Your task to perform on an android device: turn on the 24-hour format for clock Image 0: 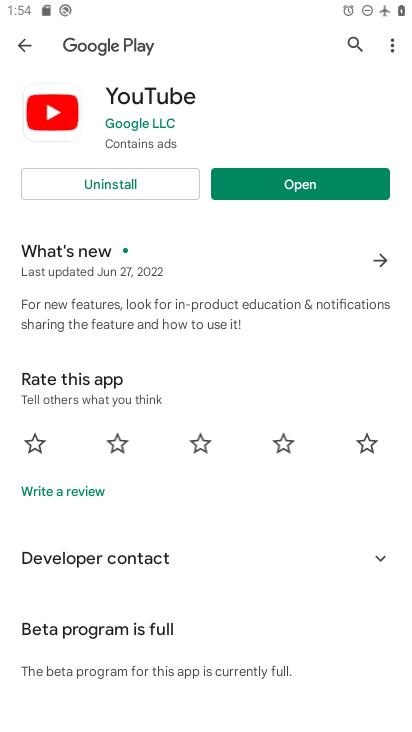
Step 0: press home button
Your task to perform on an android device: turn on the 24-hour format for clock Image 1: 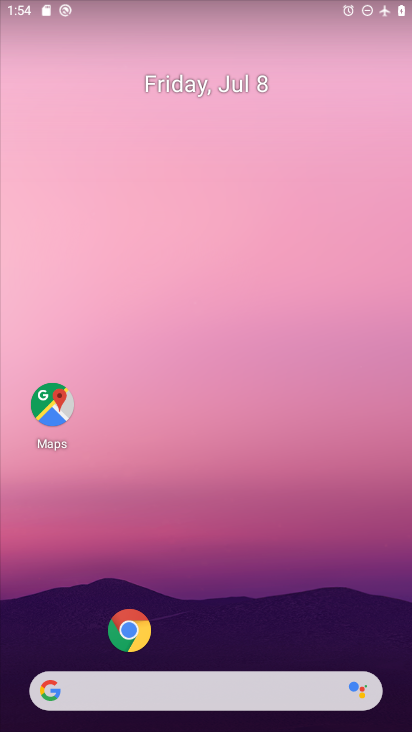
Step 1: drag from (336, 608) to (345, 178)
Your task to perform on an android device: turn on the 24-hour format for clock Image 2: 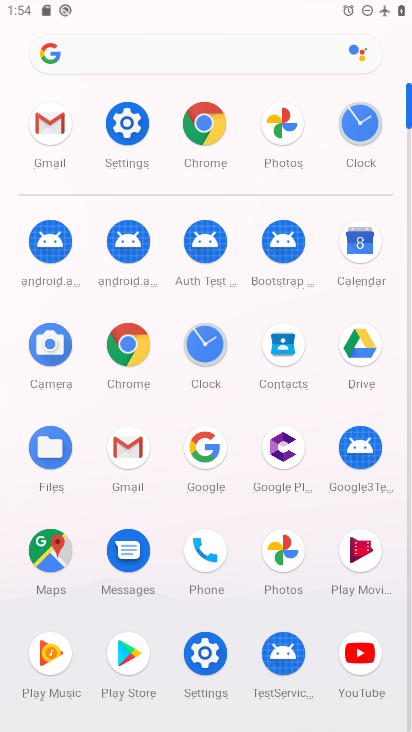
Step 2: click (207, 356)
Your task to perform on an android device: turn on the 24-hour format for clock Image 3: 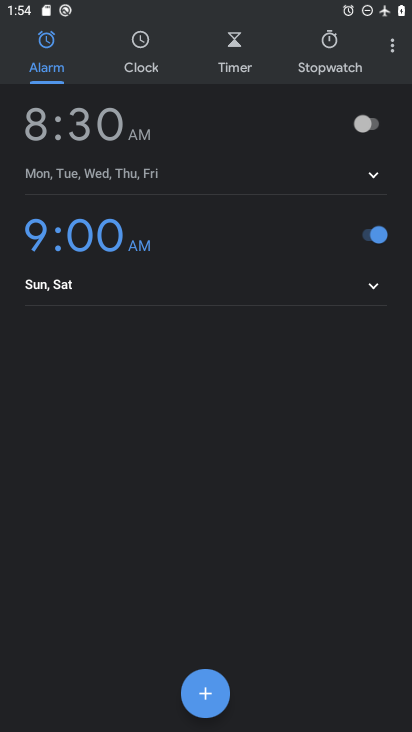
Step 3: click (383, 43)
Your task to perform on an android device: turn on the 24-hour format for clock Image 4: 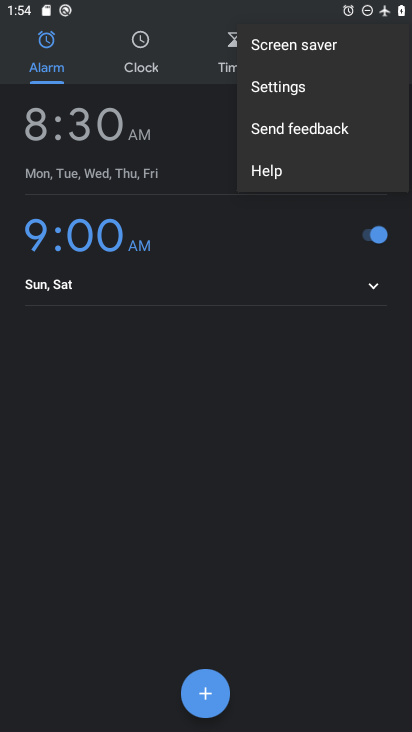
Step 4: click (303, 90)
Your task to perform on an android device: turn on the 24-hour format for clock Image 5: 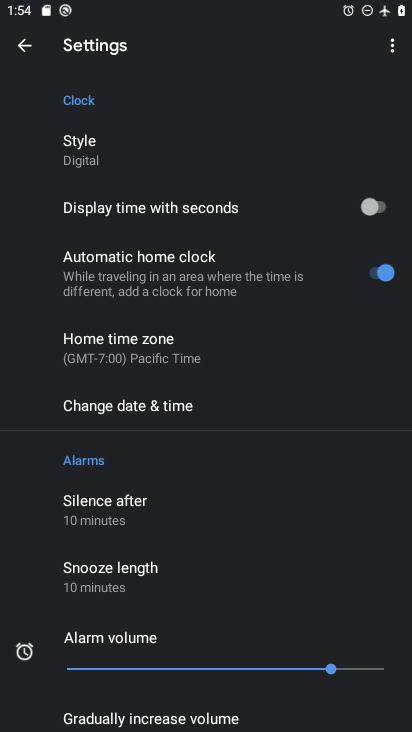
Step 5: click (165, 406)
Your task to perform on an android device: turn on the 24-hour format for clock Image 6: 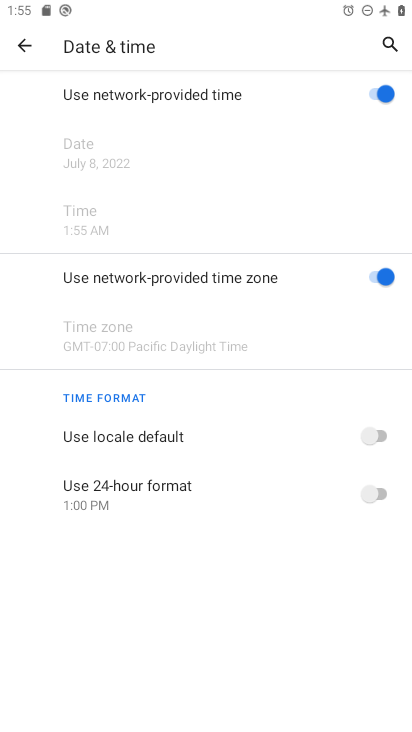
Step 6: click (384, 488)
Your task to perform on an android device: turn on the 24-hour format for clock Image 7: 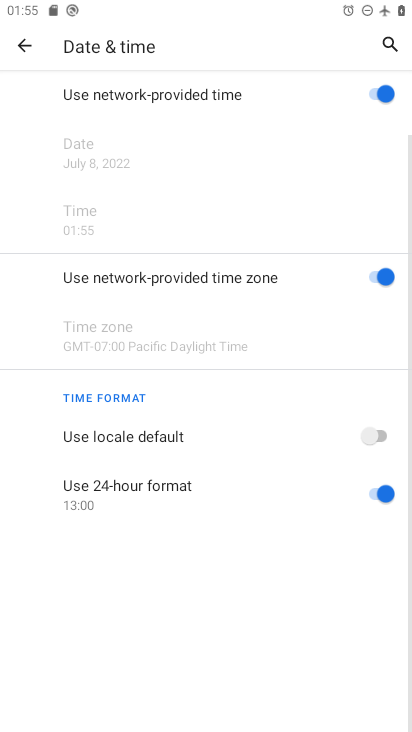
Step 7: task complete